Your task to perform on an android device: Go to Yahoo.com Image 0: 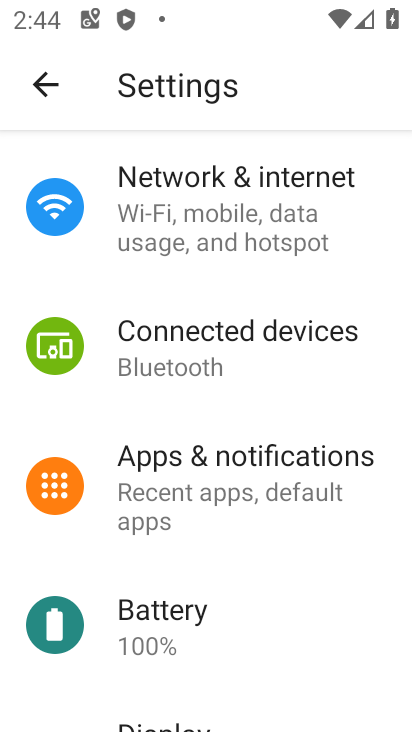
Step 0: press home button
Your task to perform on an android device: Go to Yahoo.com Image 1: 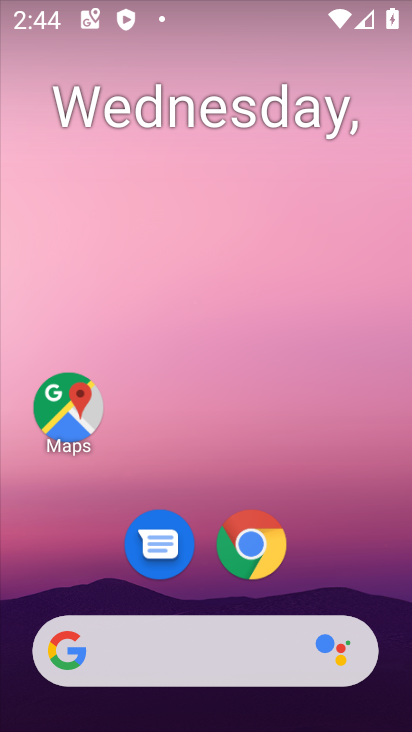
Step 1: click (378, 241)
Your task to perform on an android device: Go to Yahoo.com Image 2: 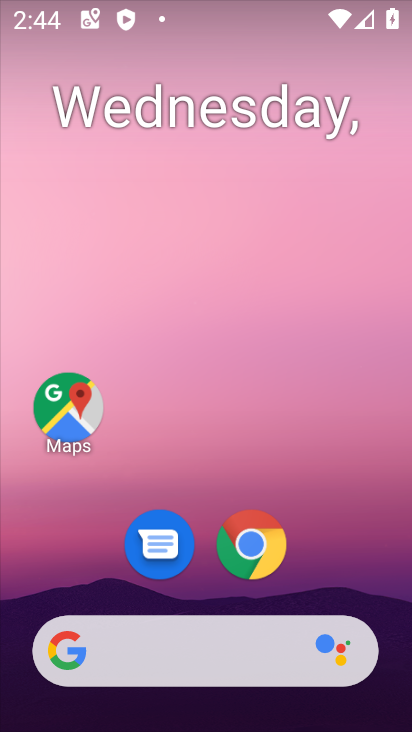
Step 2: drag from (354, 515) to (369, 212)
Your task to perform on an android device: Go to Yahoo.com Image 3: 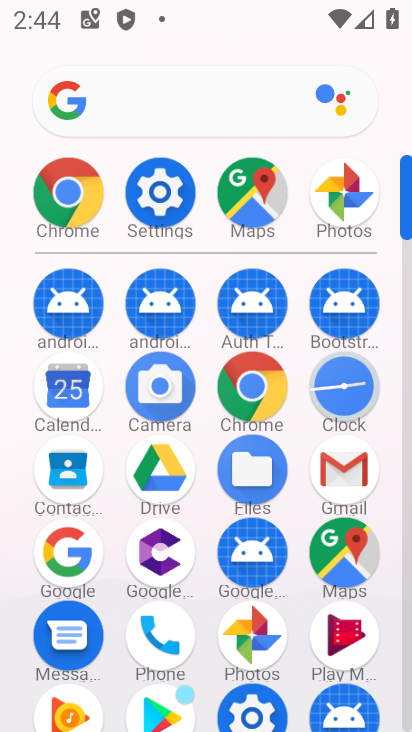
Step 3: click (273, 394)
Your task to perform on an android device: Go to Yahoo.com Image 4: 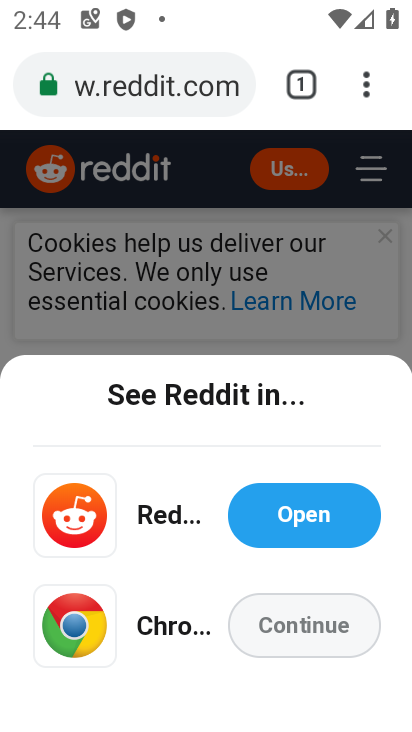
Step 4: click (205, 84)
Your task to perform on an android device: Go to Yahoo.com Image 5: 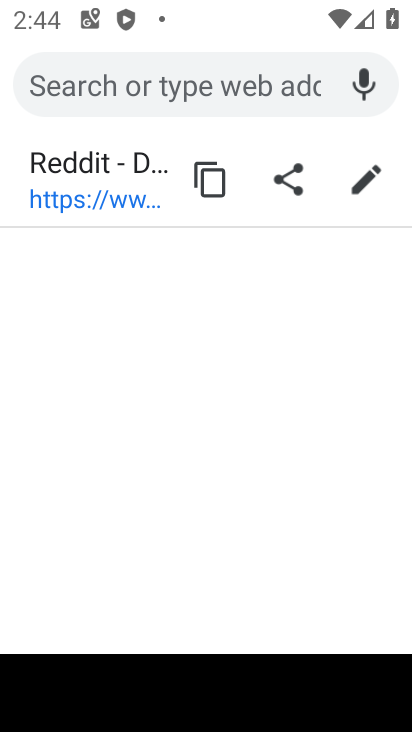
Step 5: type "yahoo.com"
Your task to perform on an android device: Go to Yahoo.com Image 6: 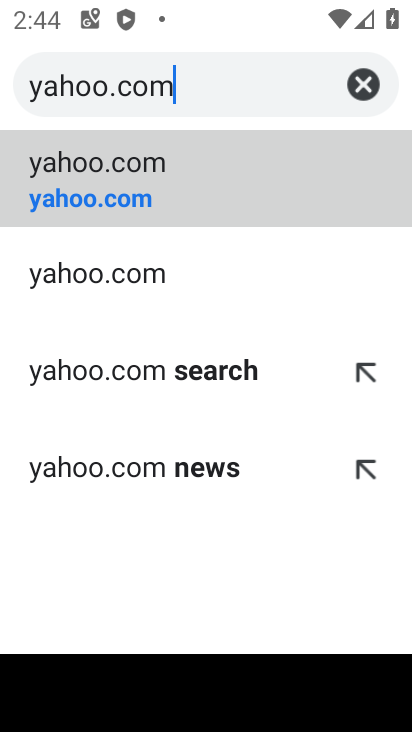
Step 6: click (125, 199)
Your task to perform on an android device: Go to Yahoo.com Image 7: 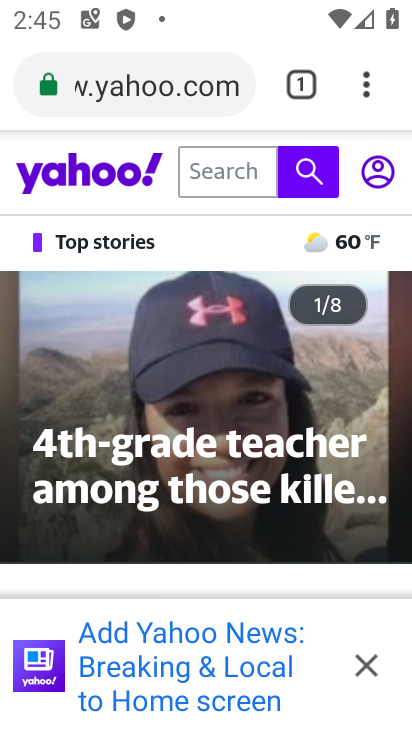
Step 7: task complete